Your task to perform on an android device: Find coffee shops on Maps Image 0: 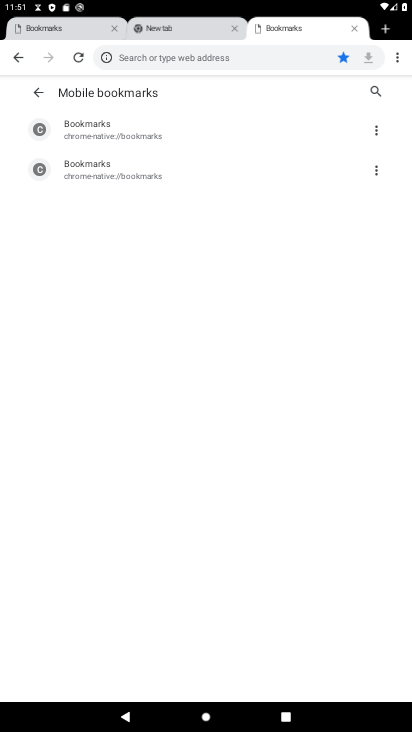
Step 0: press home button
Your task to perform on an android device: Find coffee shops on Maps Image 1: 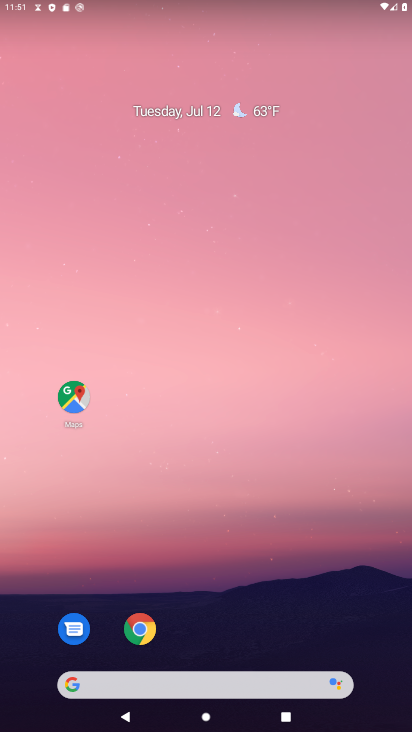
Step 1: drag from (283, 569) to (328, 126)
Your task to perform on an android device: Find coffee shops on Maps Image 2: 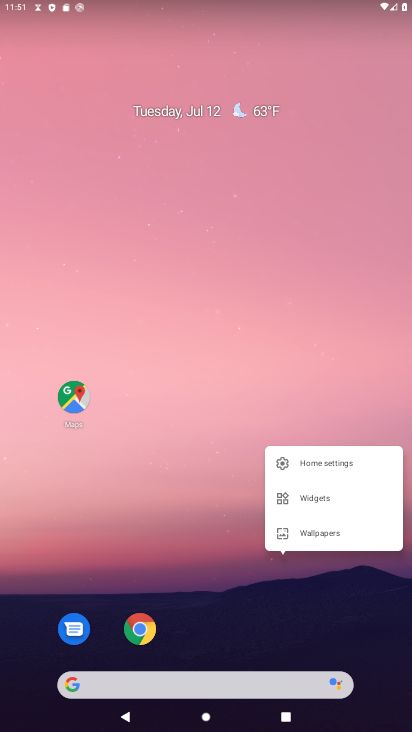
Step 2: drag from (336, 616) to (338, 35)
Your task to perform on an android device: Find coffee shops on Maps Image 3: 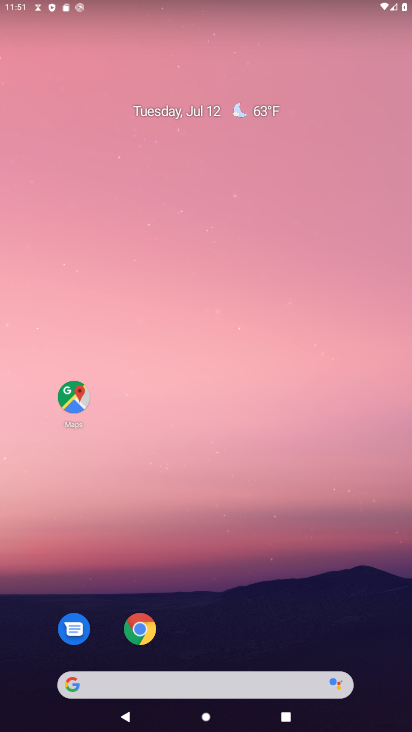
Step 3: drag from (342, 626) to (293, 88)
Your task to perform on an android device: Find coffee shops on Maps Image 4: 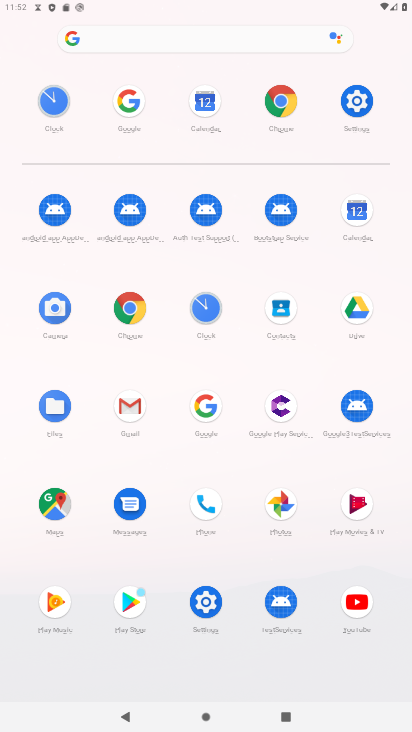
Step 4: click (58, 505)
Your task to perform on an android device: Find coffee shops on Maps Image 5: 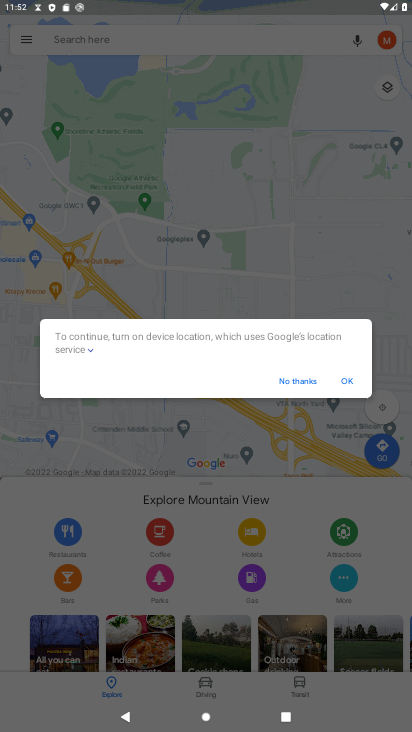
Step 5: click (299, 384)
Your task to perform on an android device: Find coffee shops on Maps Image 6: 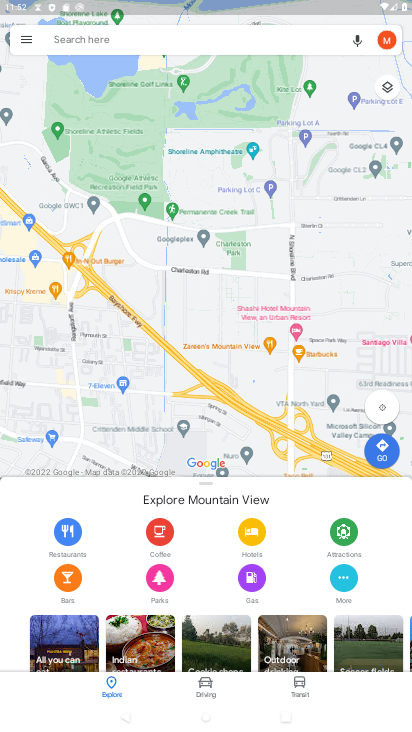
Step 6: click (222, 31)
Your task to perform on an android device: Find coffee shops on Maps Image 7: 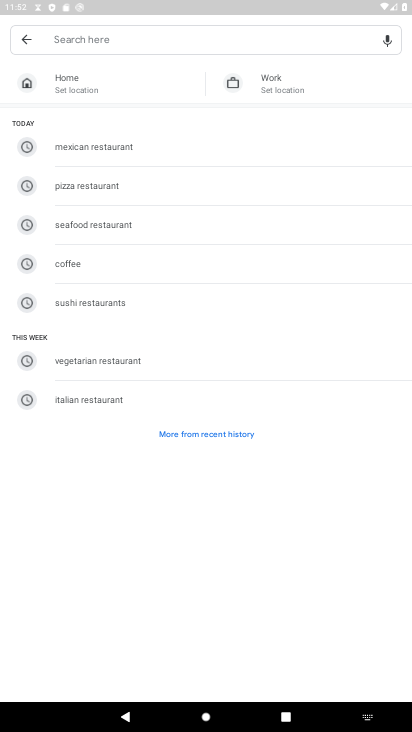
Step 7: click (126, 260)
Your task to perform on an android device: Find coffee shops on Maps Image 8: 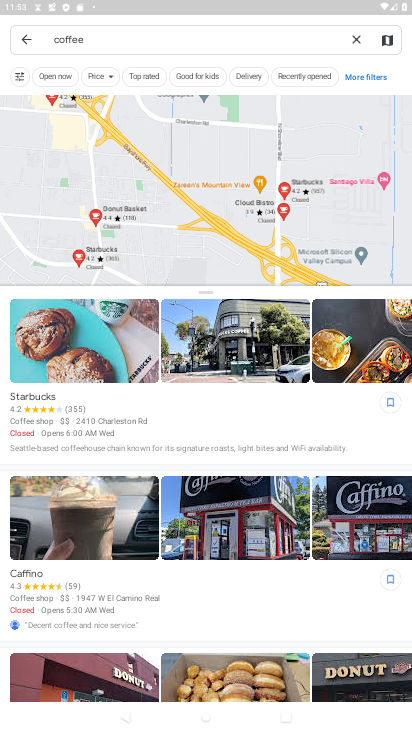
Step 8: task complete